Your task to perform on an android device: check google app version Image 0: 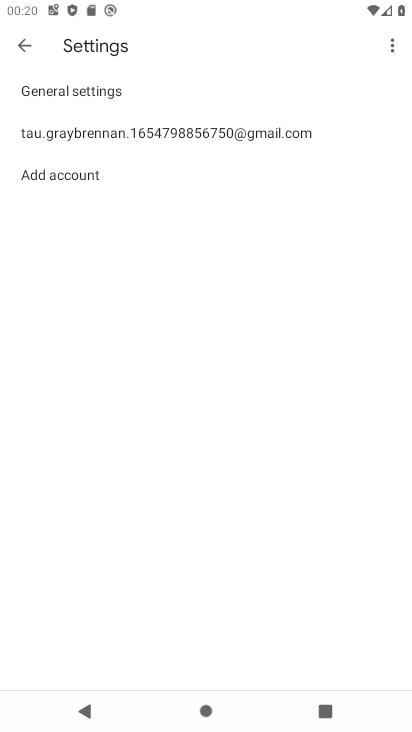
Step 0: press home button
Your task to perform on an android device: check google app version Image 1: 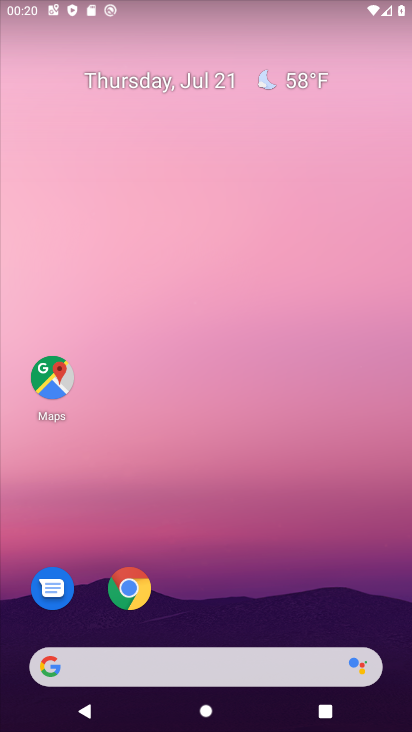
Step 1: click (40, 672)
Your task to perform on an android device: check google app version Image 2: 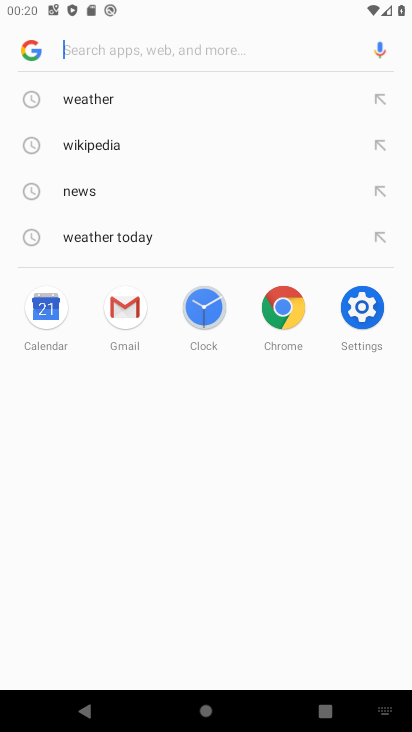
Step 2: click (30, 48)
Your task to perform on an android device: check google app version Image 3: 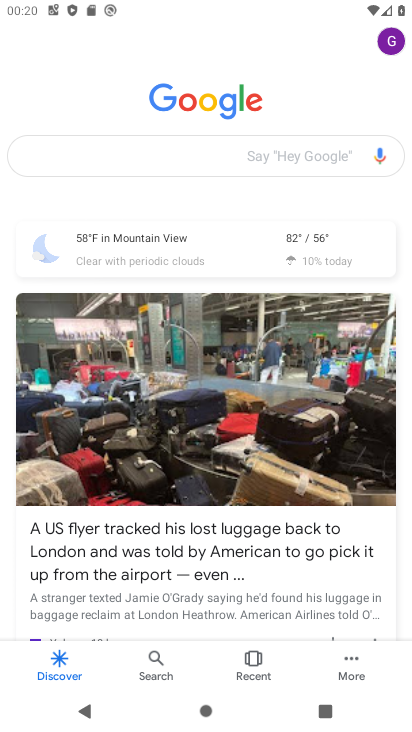
Step 3: click (350, 658)
Your task to perform on an android device: check google app version Image 4: 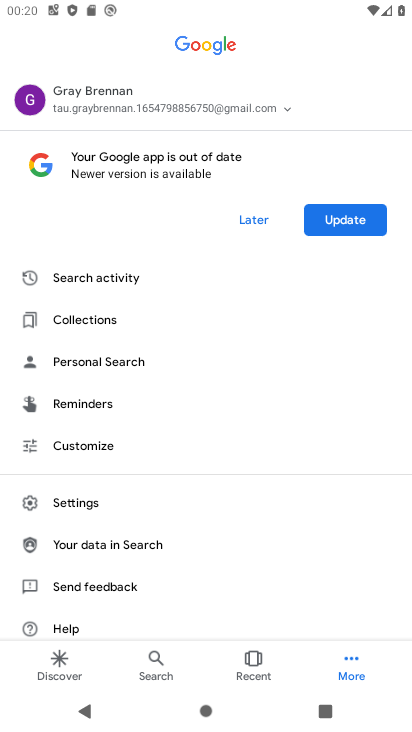
Step 4: click (84, 505)
Your task to perform on an android device: check google app version Image 5: 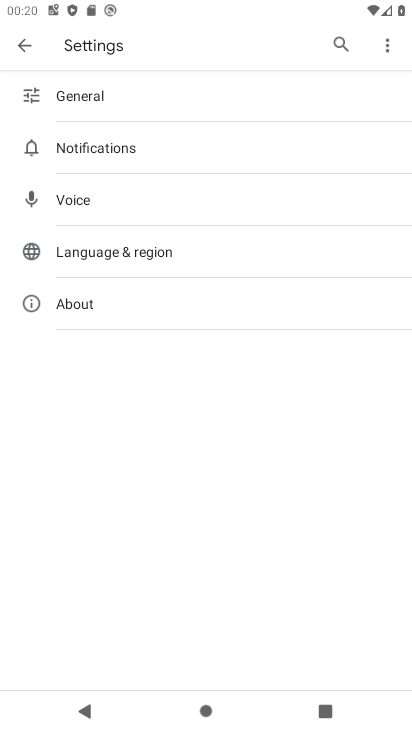
Step 5: click (81, 303)
Your task to perform on an android device: check google app version Image 6: 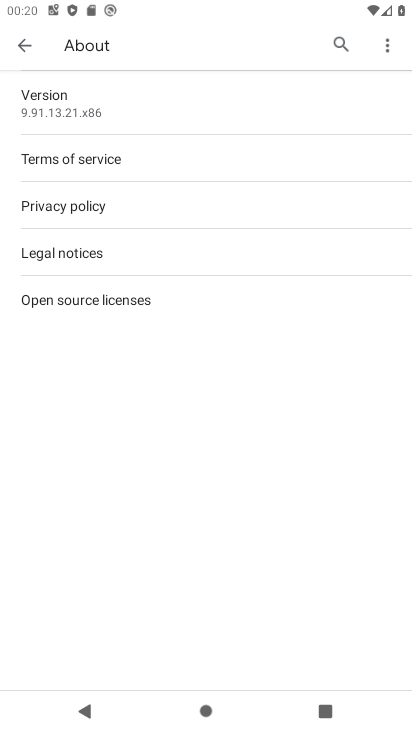
Step 6: task complete